Your task to perform on an android device: Go to calendar. Show me events next week Image 0: 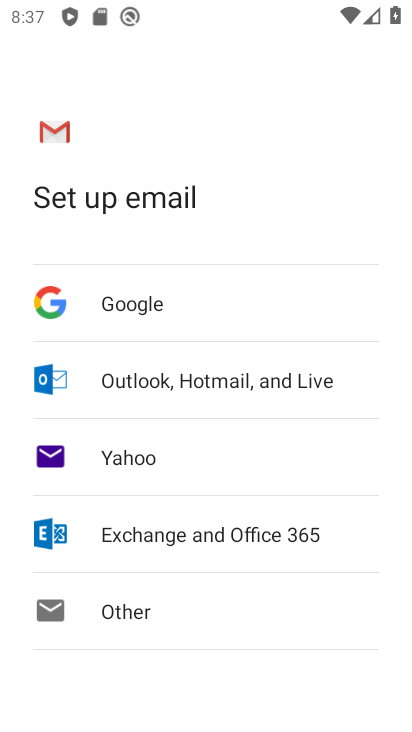
Step 0: press home button
Your task to perform on an android device: Go to calendar. Show me events next week Image 1: 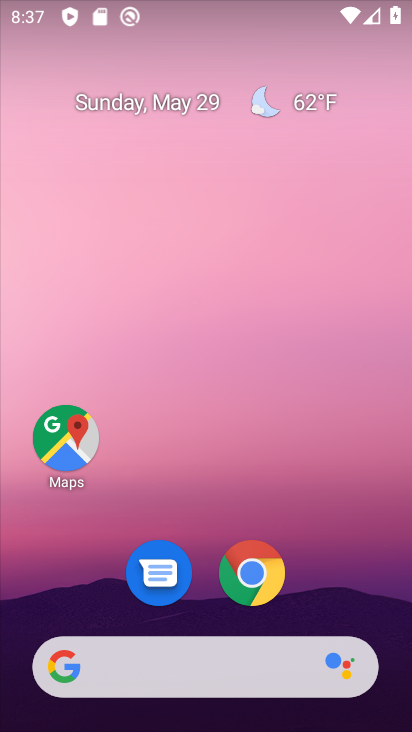
Step 1: drag from (354, 569) to (398, 225)
Your task to perform on an android device: Go to calendar. Show me events next week Image 2: 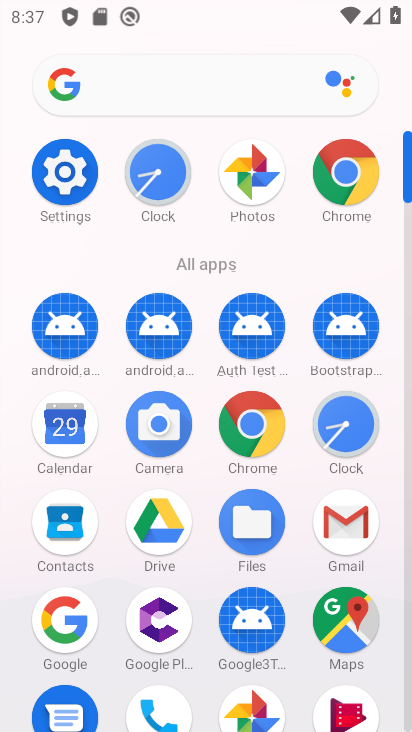
Step 2: click (76, 441)
Your task to perform on an android device: Go to calendar. Show me events next week Image 3: 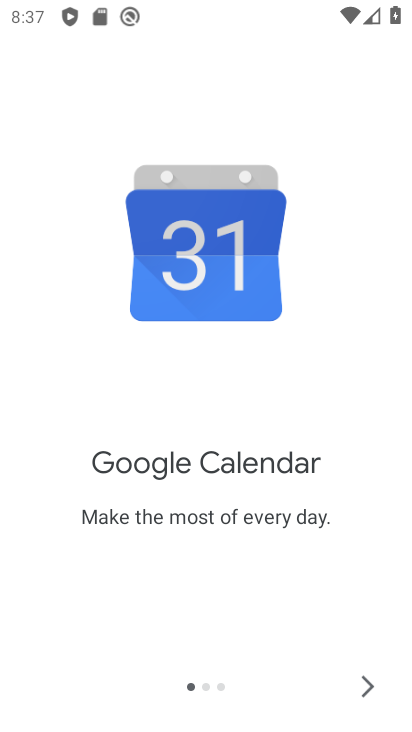
Step 3: click (371, 683)
Your task to perform on an android device: Go to calendar. Show me events next week Image 4: 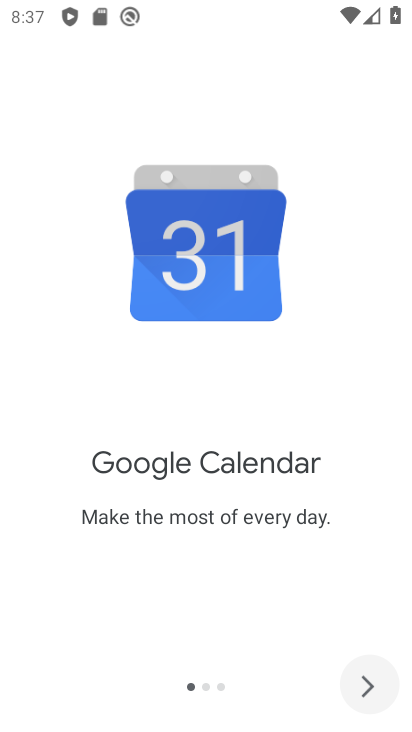
Step 4: click (371, 683)
Your task to perform on an android device: Go to calendar. Show me events next week Image 5: 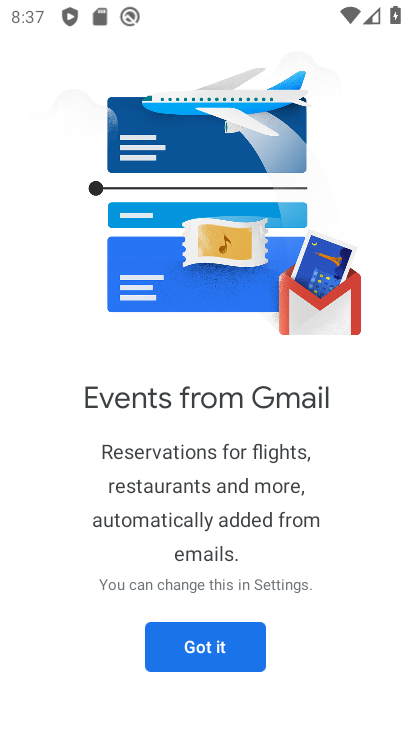
Step 5: click (203, 640)
Your task to perform on an android device: Go to calendar. Show me events next week Image 6: 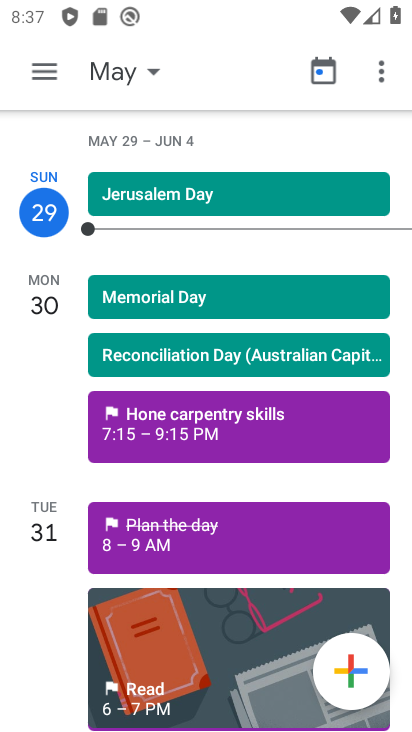
Step 6: click (48, 75)
Your task to perform on an android device: Go to calendar. Show me events next week Image 7: 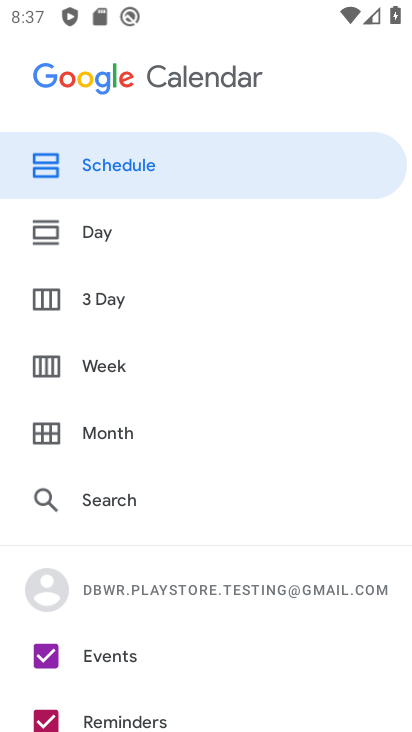
Step 7: click (280, 687)
Your task to perform on an android device: Go to calendar. Show me events next week Image 8: 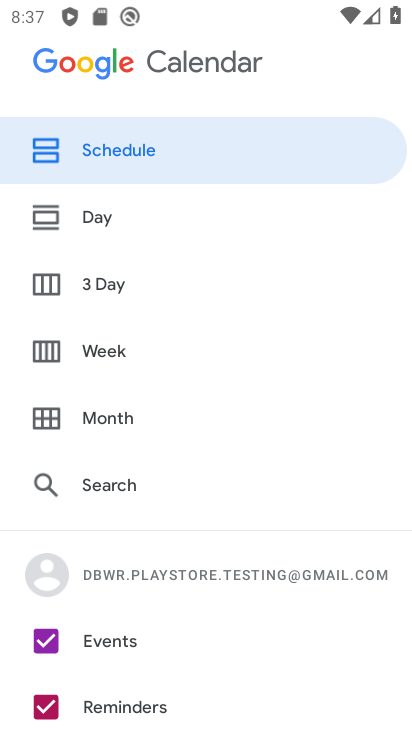
Step 8: click (217, 152)
Your task to perform on an android device: Go to calendar. Show me events next week Image 9: 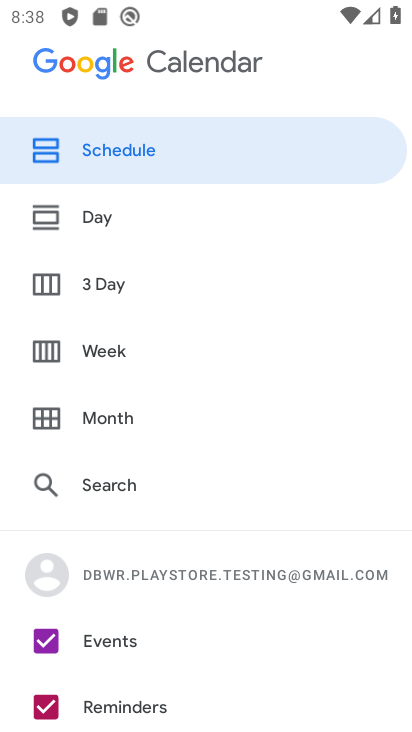
Step 9: click (120, 146)
Your task to perform on an android device: Go to calendar. Show me events next week Image 10: 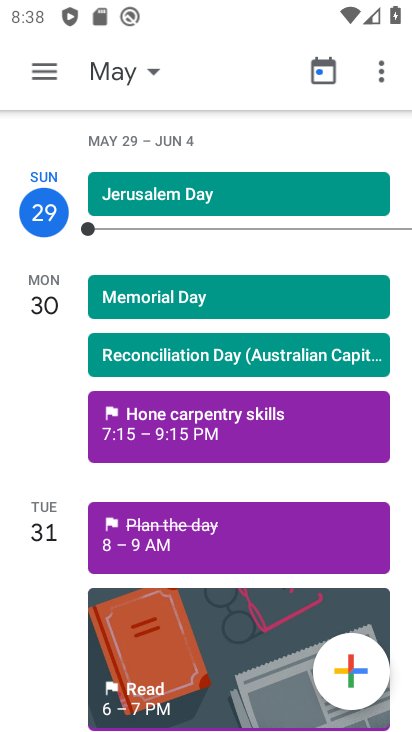
Step 10: task complete